Your task to perform on an android device: Open Yahoo.com Image 0: 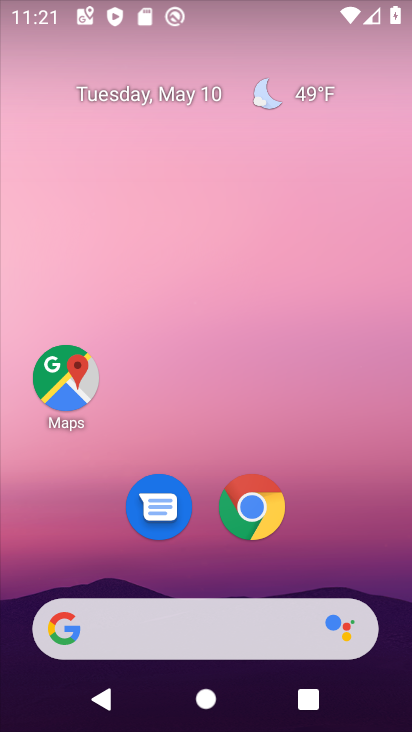
Step 0: click (259, 506)
Your task to perform on an android device: Open Yahoo.com Image 1: 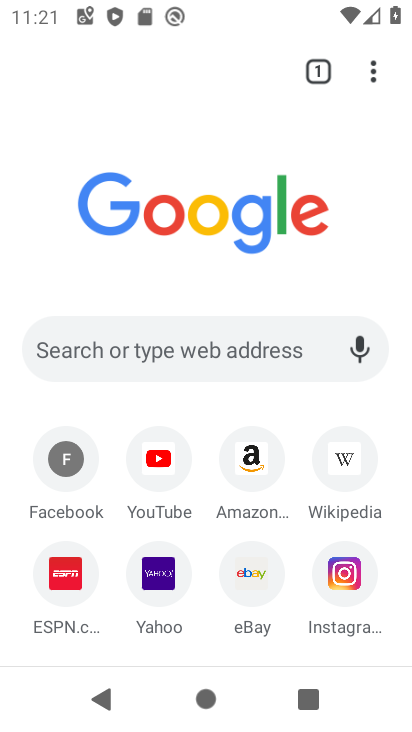
Step 1: click (165, 574)
Your task to perform on an android device: Open Yahoo.com Image 2: 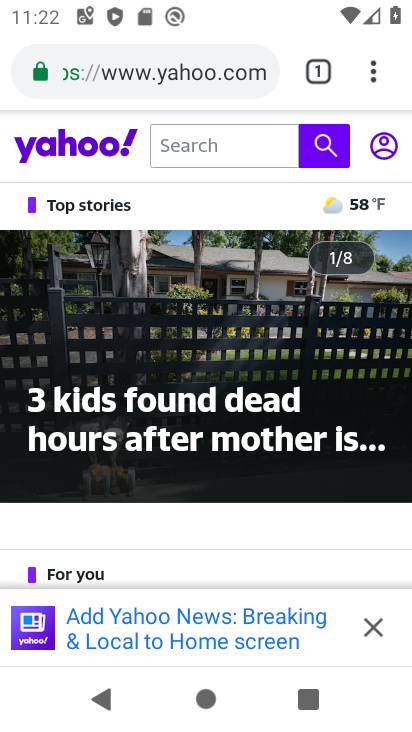
Step 2: task complete